Your task to perform on an android device: turn on the 12-hour format for clock Image 0: 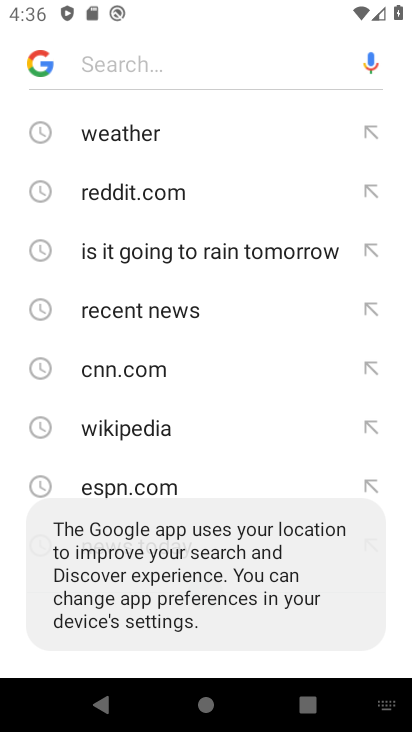
Step 0: press home button
Your task to perform on an android device: turn on the 12-hour format for clock Image 1: 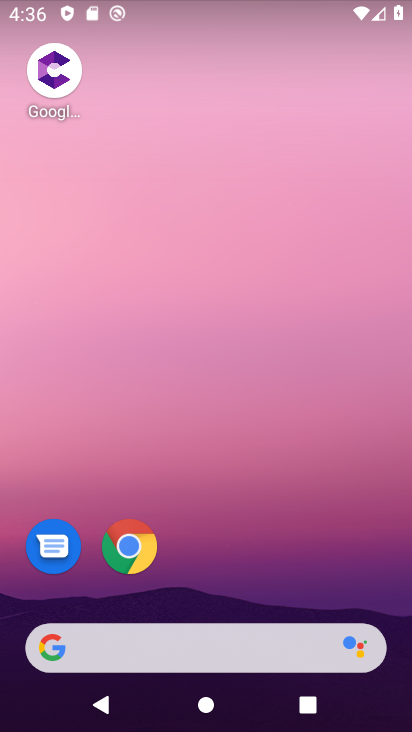
Step 1: drag from (306, 457) to (264, 22)
Your task to perform on an android device: turn on the 12-hour format for clock Image 2: 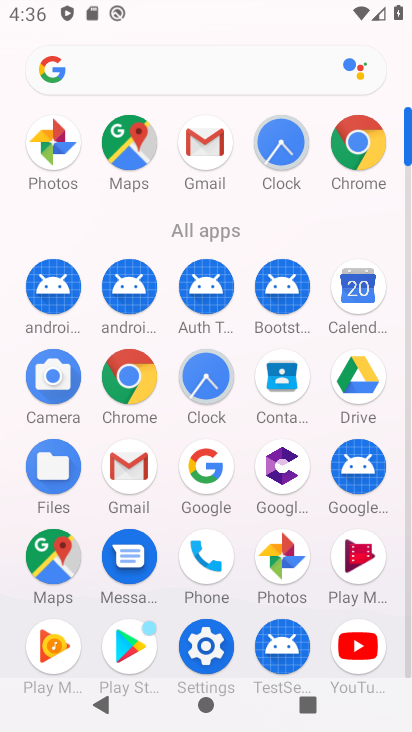
Step 2: click (193, 385)
Your task to perform on an android device: turn on the 12-hour format for clock Image 3: 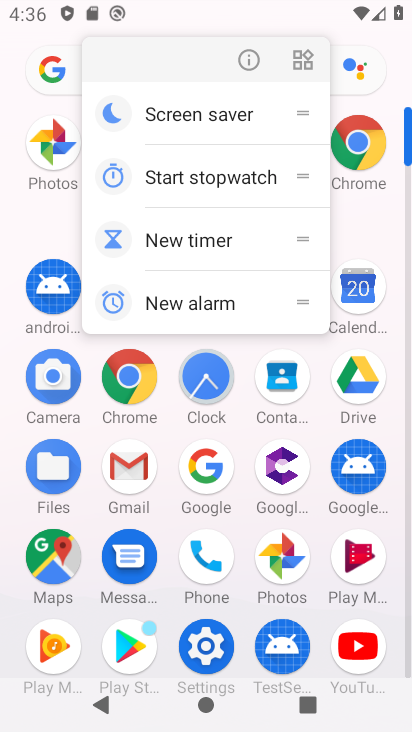
Step 3: click (201, 379)
Your task to perform on an android device: turn on the 12-hour format for clock Image 4: 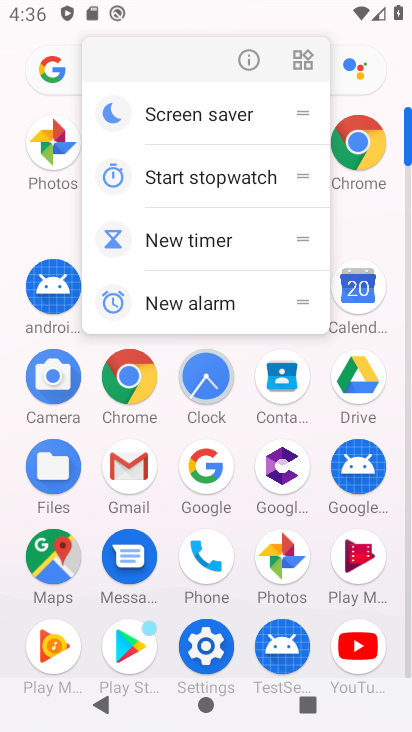
Step 4: click (201, 377)
Your task to perform on an android device: turn on the 12-hour format for clock Image 5: 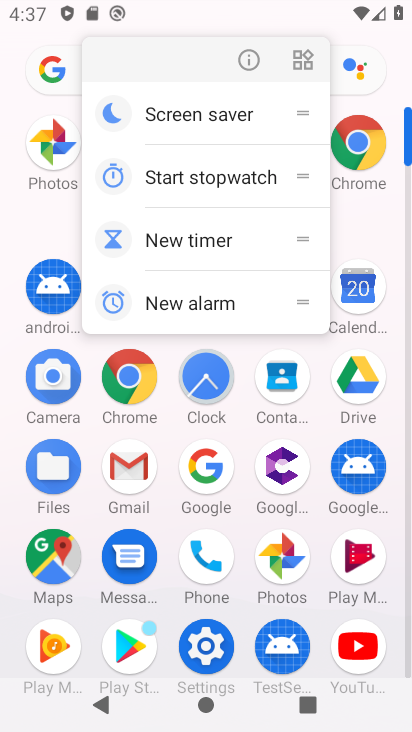
Step 5: click (200, 379)
Your task to perform on an android device: turn on the 12-hour format for clock Image 6: 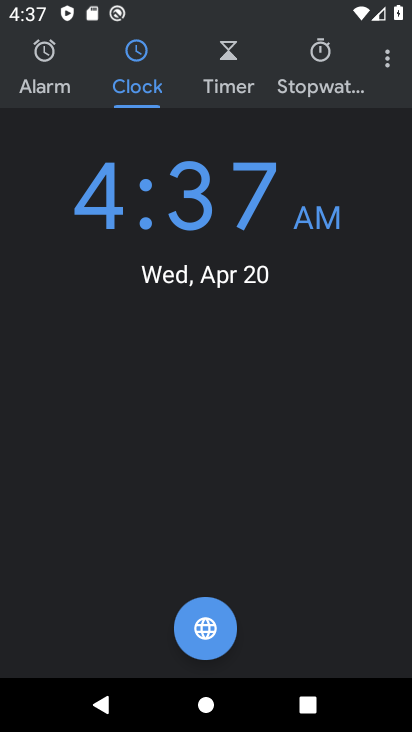
Step 6: click (390, 61)
Your task to perform on an android device: turn on the 12-hour format for clock Image 7: 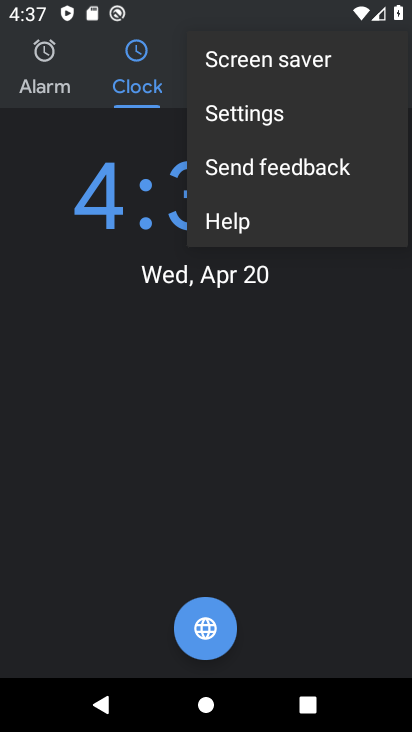
Step 7: click (273, 110)
Your task to perform on an android device: turn on the 12-hour format for clock Image 8: 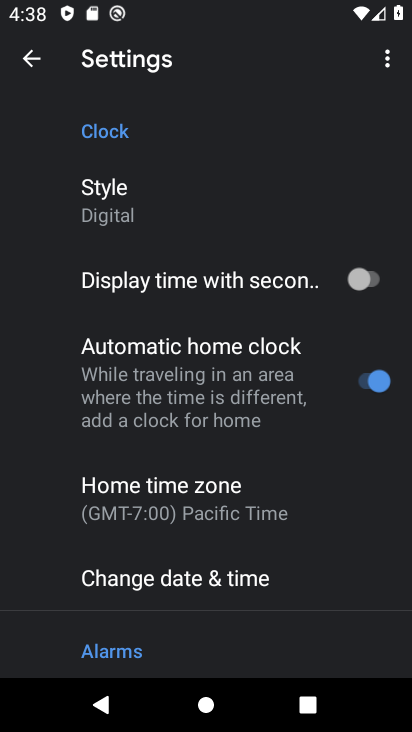
Step 8: drag from (287, 426) to (347, 138)
Your task to perform on an android device: turn on the 12-hour format for clock Image 9: 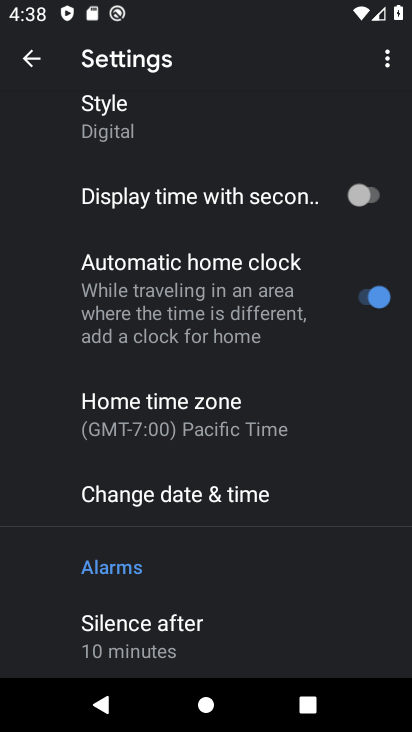
Step 9: click (217, 469)
Your task to perform on an android device: turn on the 12-hour format for clock Image 10: 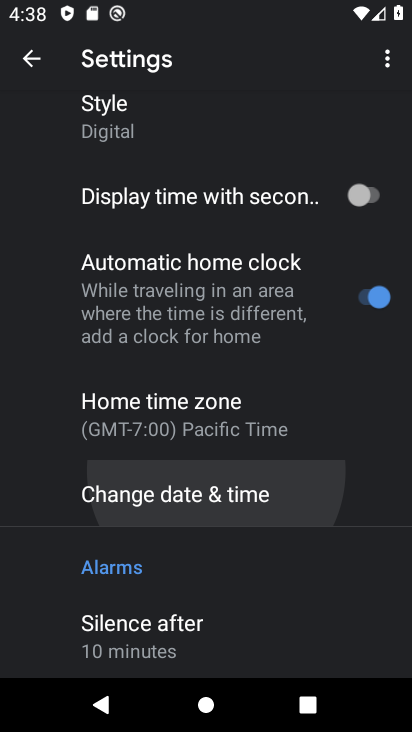
Step 10: click (212, 493)
Your task to perform on an android device: turn on the 12-hour format for clock Image 11: 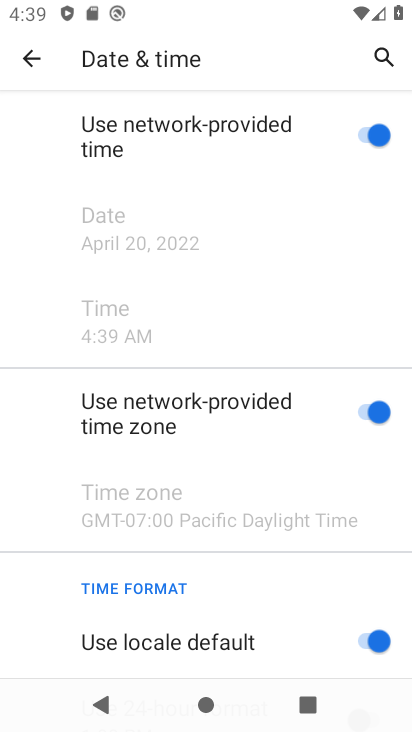
Step 11: drag from (210, 606) to (219, 255)
Your task to perform on an android device: turn on the 12-hour format for clock Image 12: 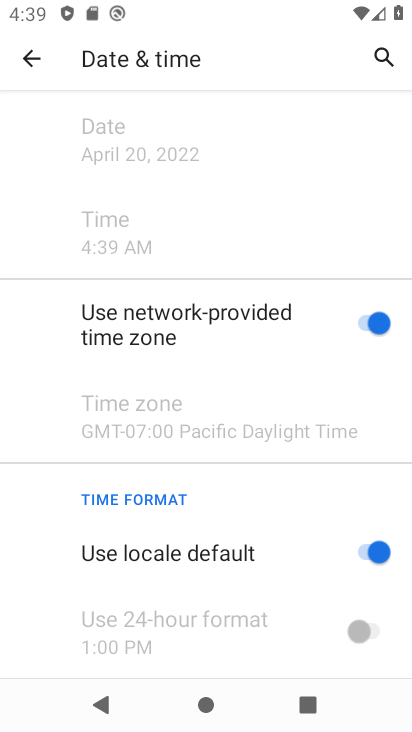
Step 12: drag from (263, 546) to (314, 382)
Your task to perform on an android device: turn on the 12-hour format for clock Image 13: 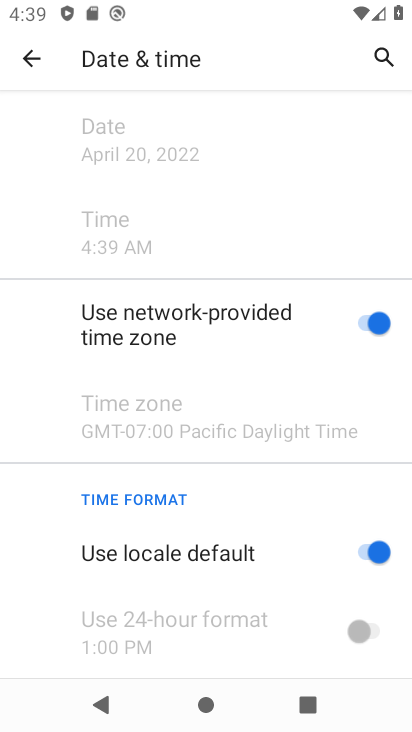
Step 13: click (361, 548)
Your task to perform on an android device: turn on the 12-hour format for clock Image 14: 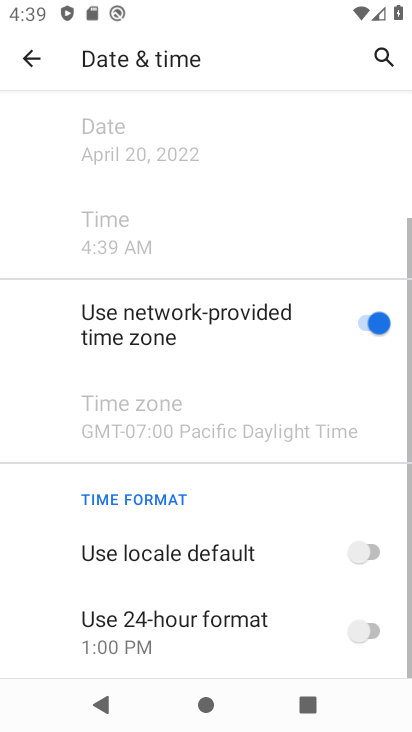
Step 14: task complete